Your task to perform on an android device: What's the news this week? Image 0: 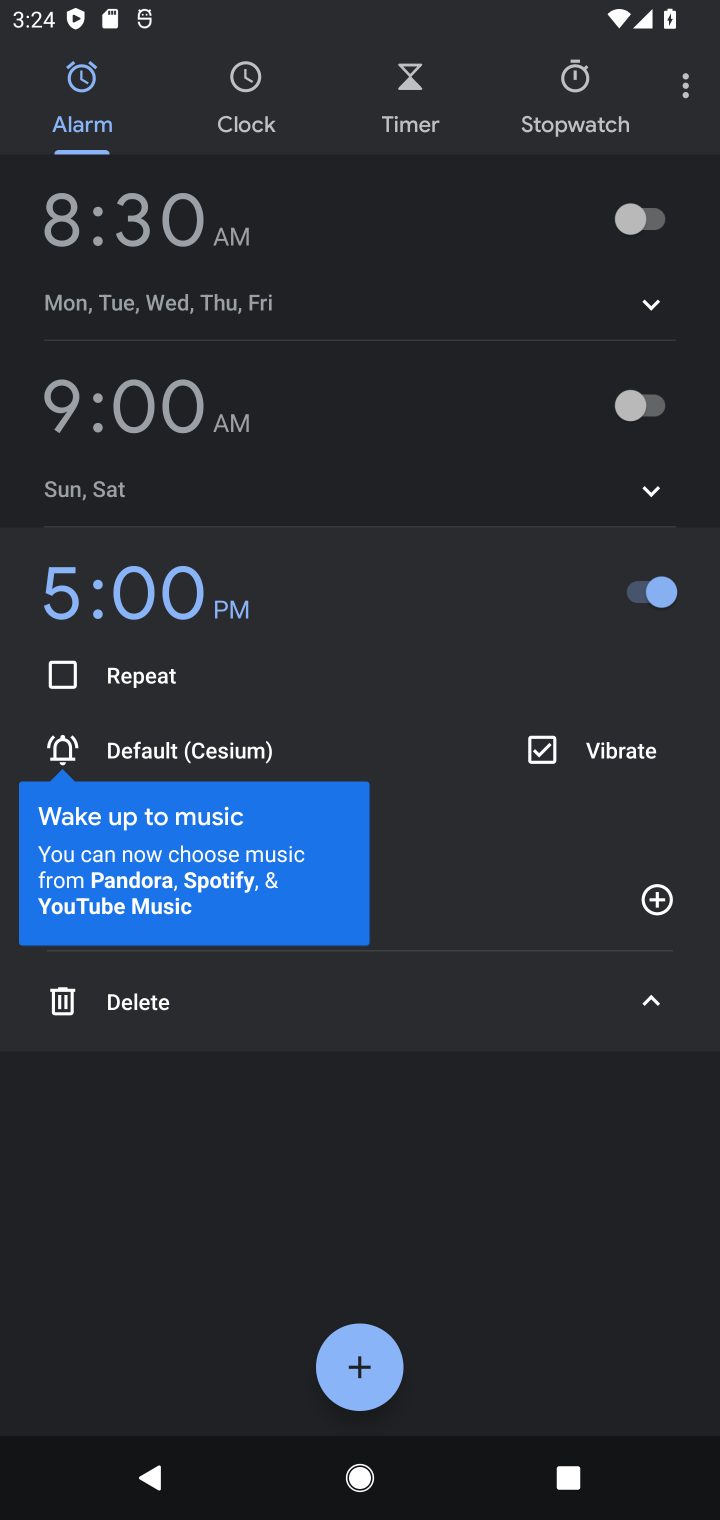
Step 0: press home button
Your task to perform on an android device: What's the news this week? Image 1: 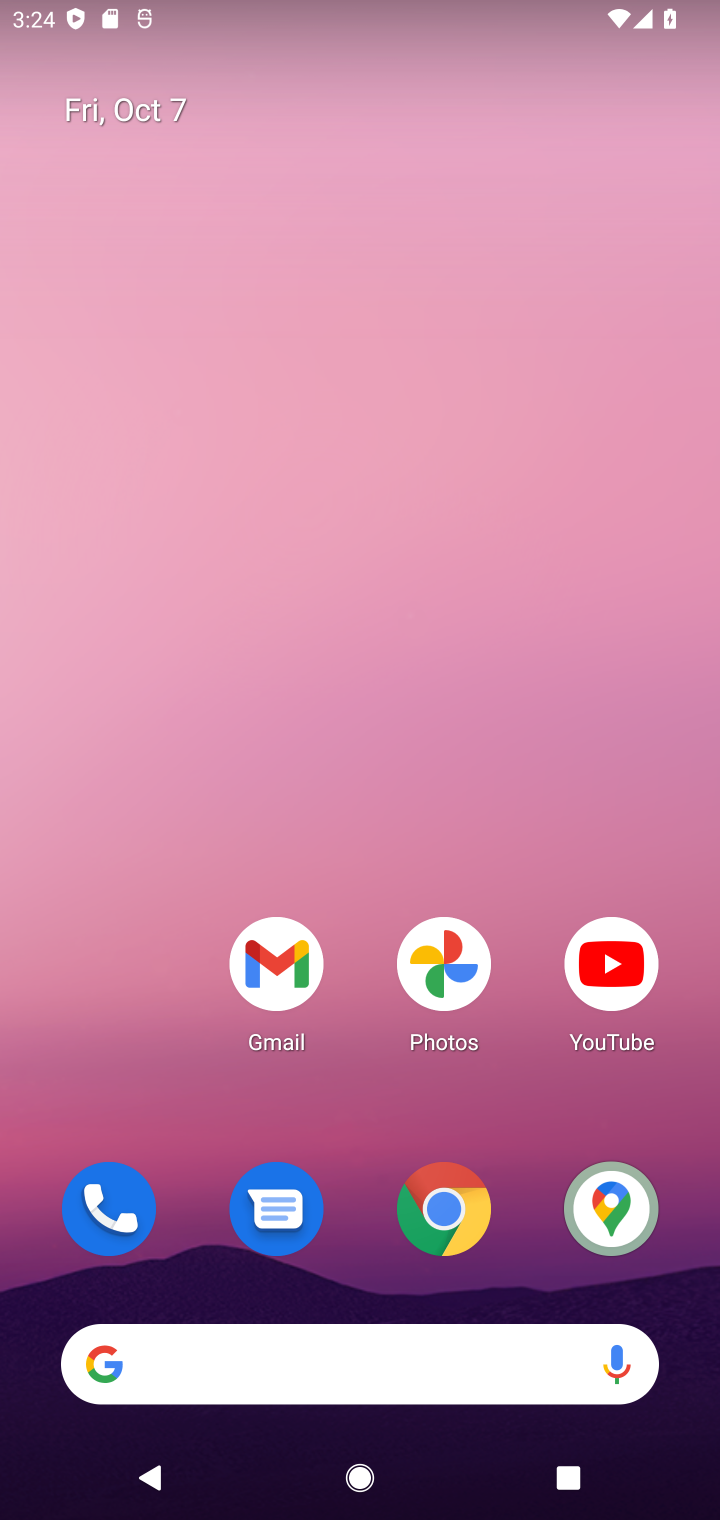
Step 1: click (335, 1382)
Your task to perform on an android device: What's the news this week? Image 2: 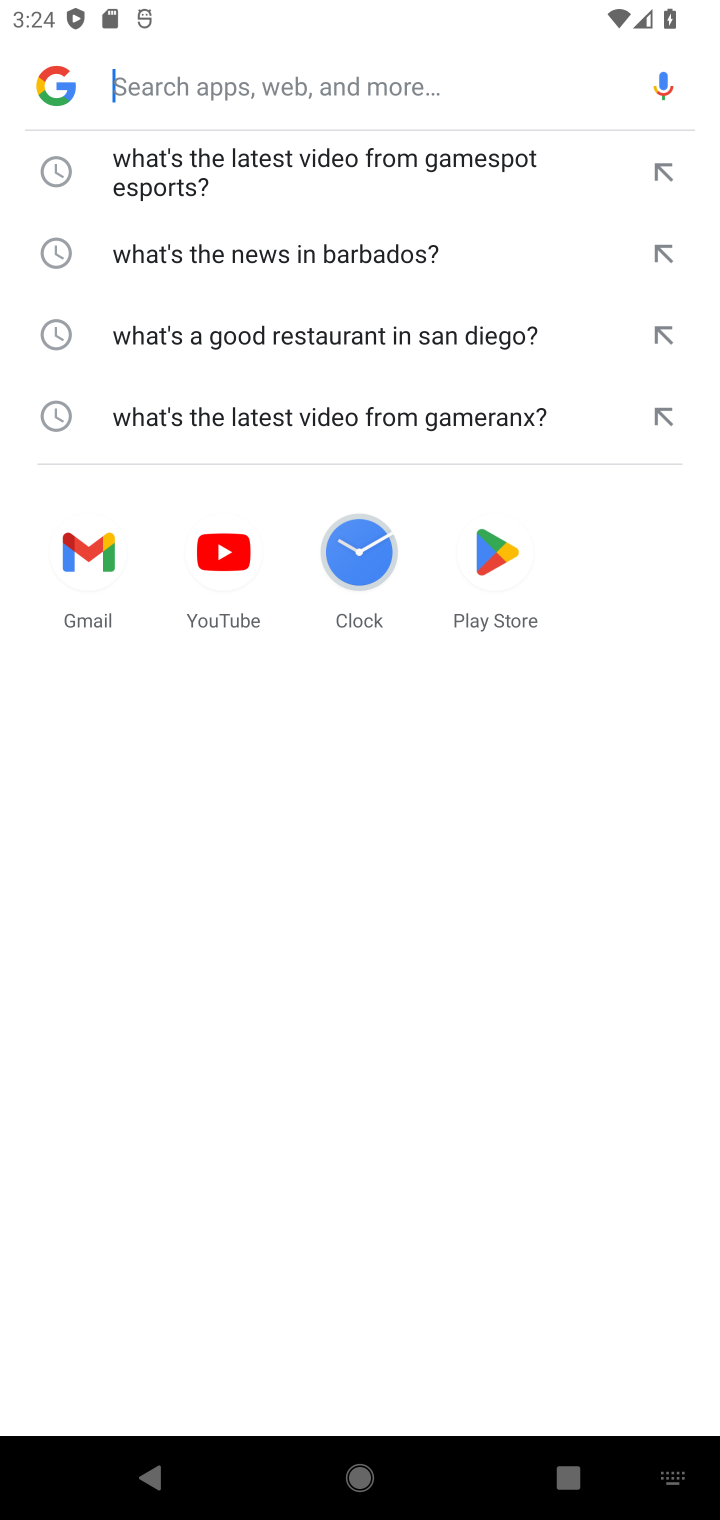
Step 2: press enter
Your task to perform on an android device: What's the news this week? Image 3: 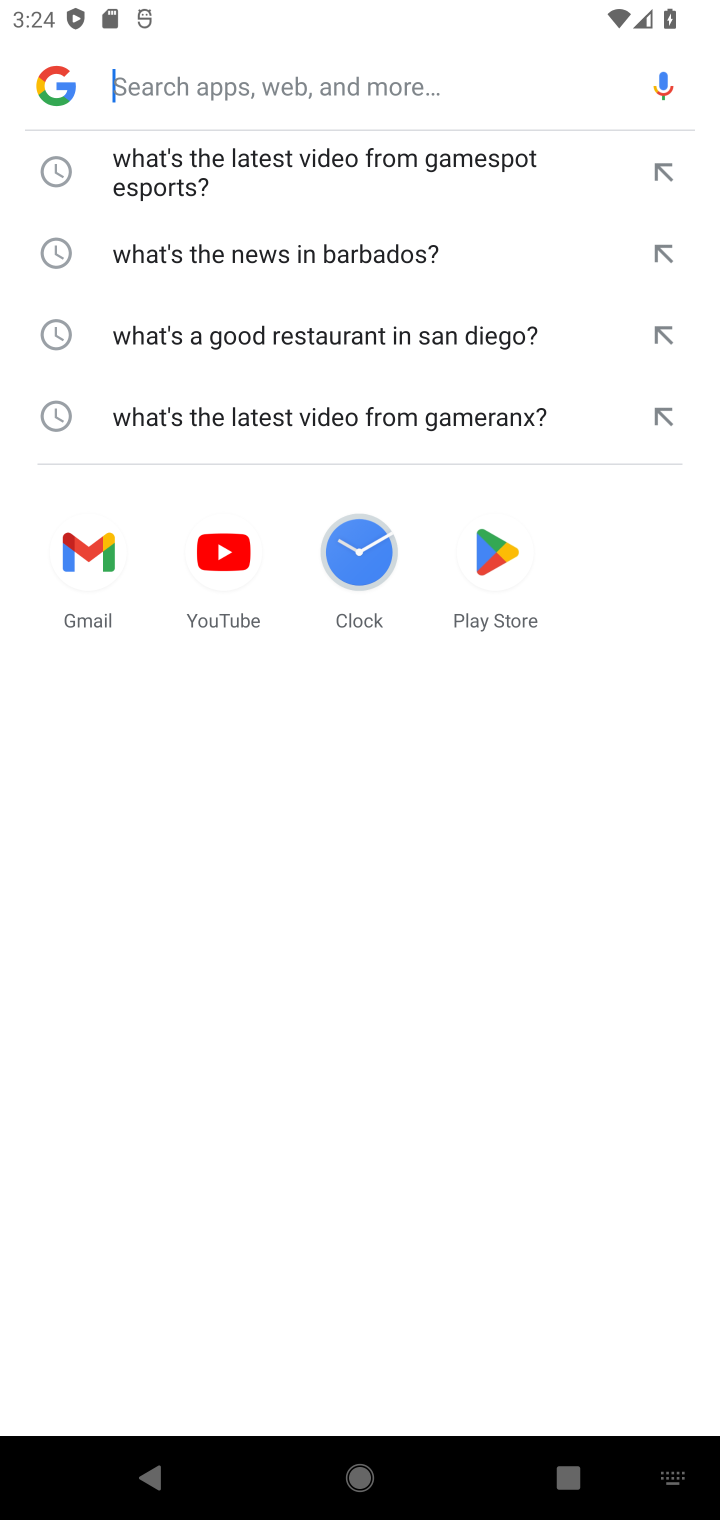
Step 3: type "What's the news this week?"
Your task to perform on an android device: What's the news this week? Image 4: 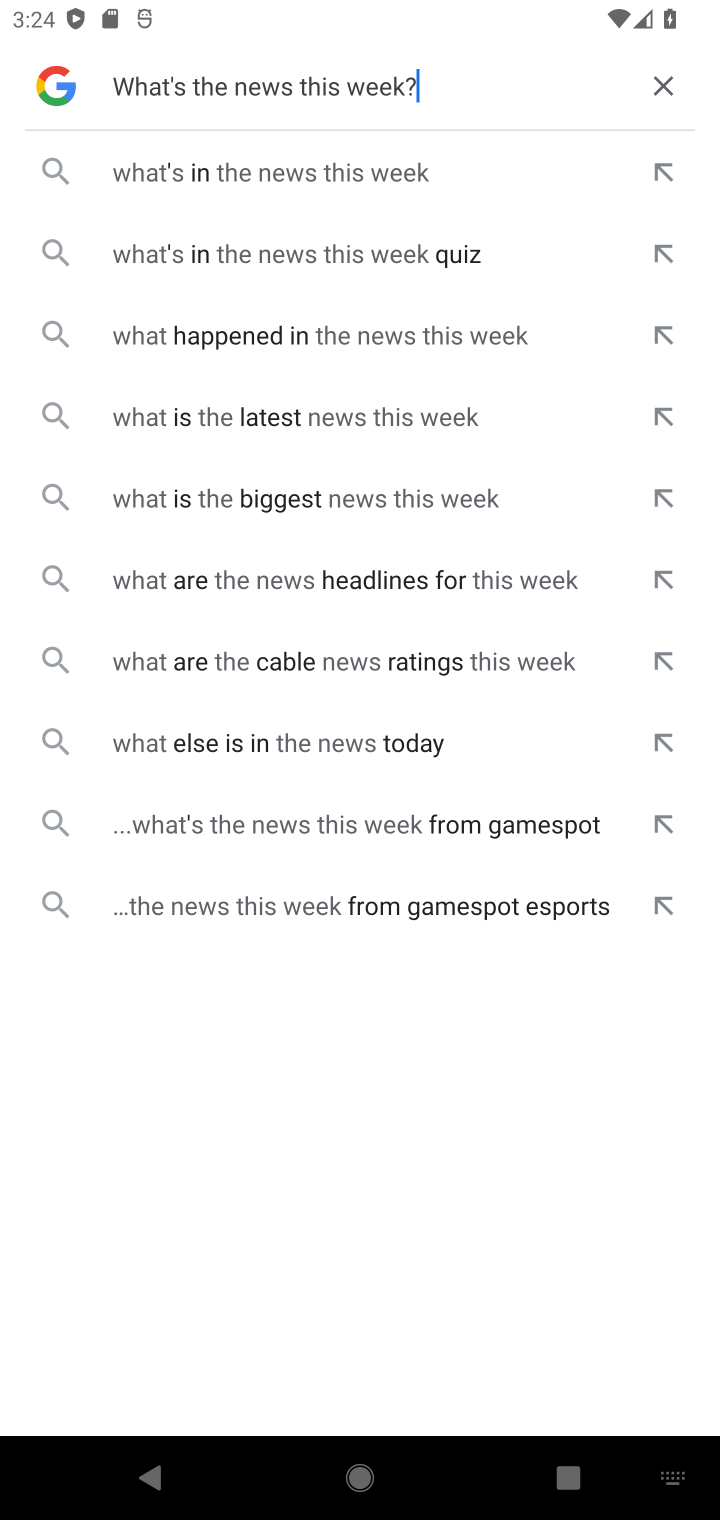
Step 4: press enter
Your task to perform on an android device: What's the news this week? Image 5: 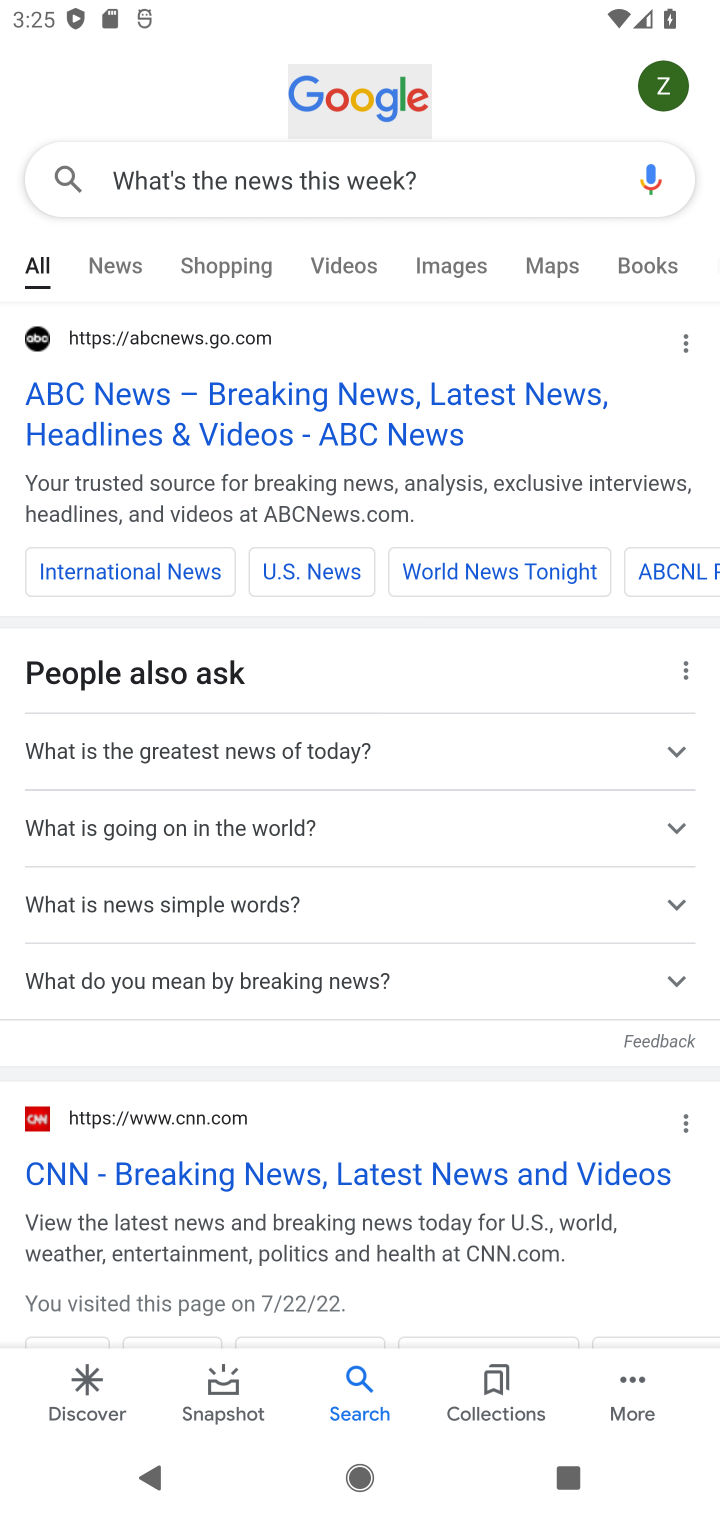
Step 5: click (349, 409)
Your task to perform on an android device: What's the news this week? Image 6: 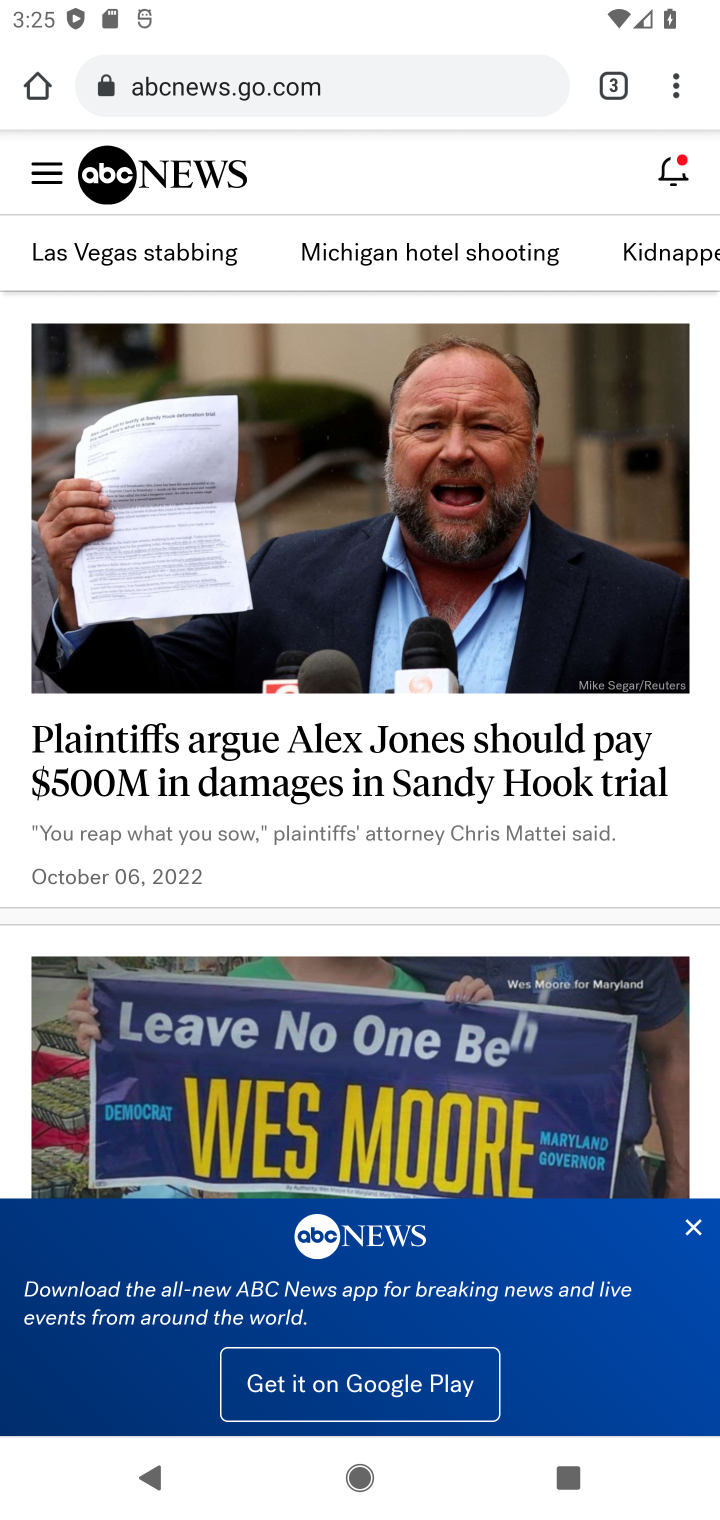
Step 6: drag from (566, 1033) to (570, 611)
Your task to perform on an android device: What's the news this week? Image 7: 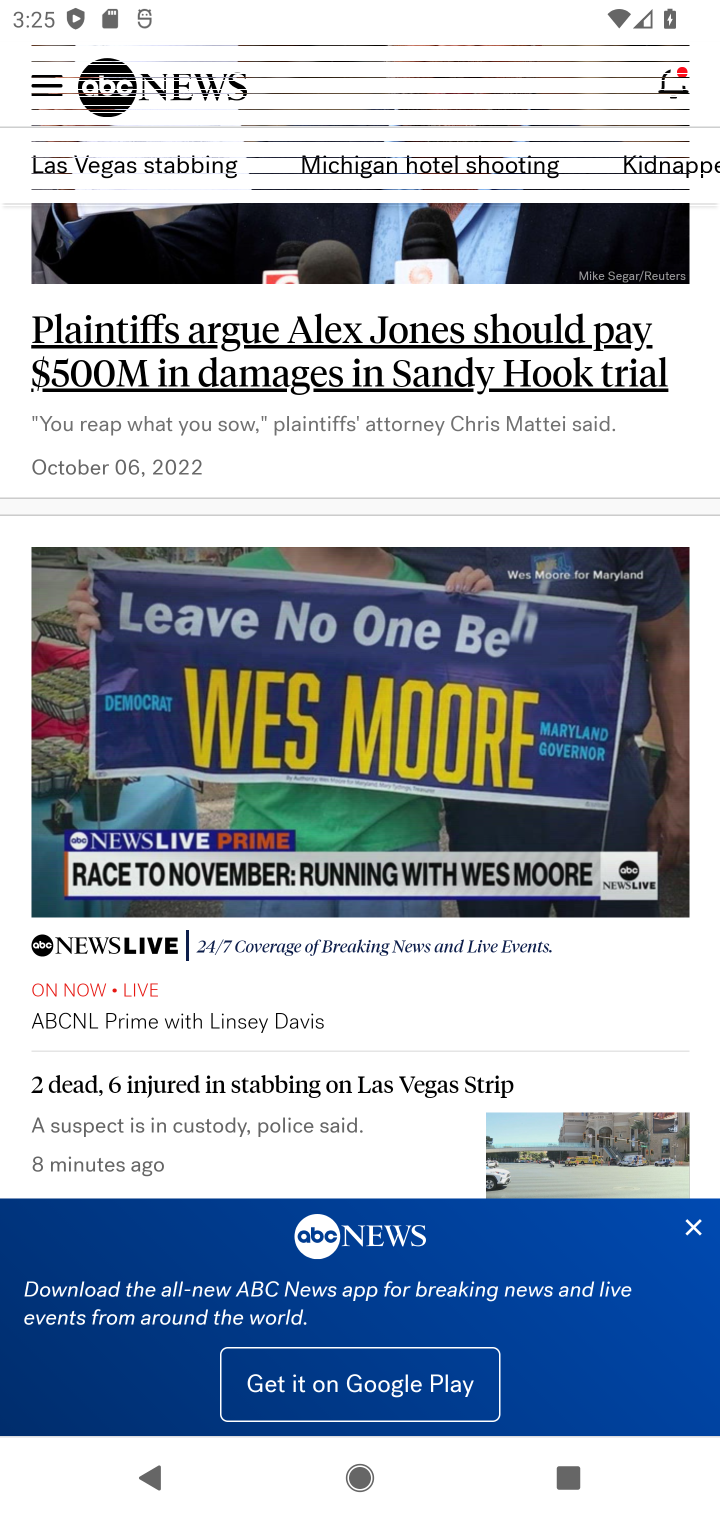
Step 7: drag from (546, 956) to (548, 537)
Your task to perform on an android device: What's the news this week? Image 8: 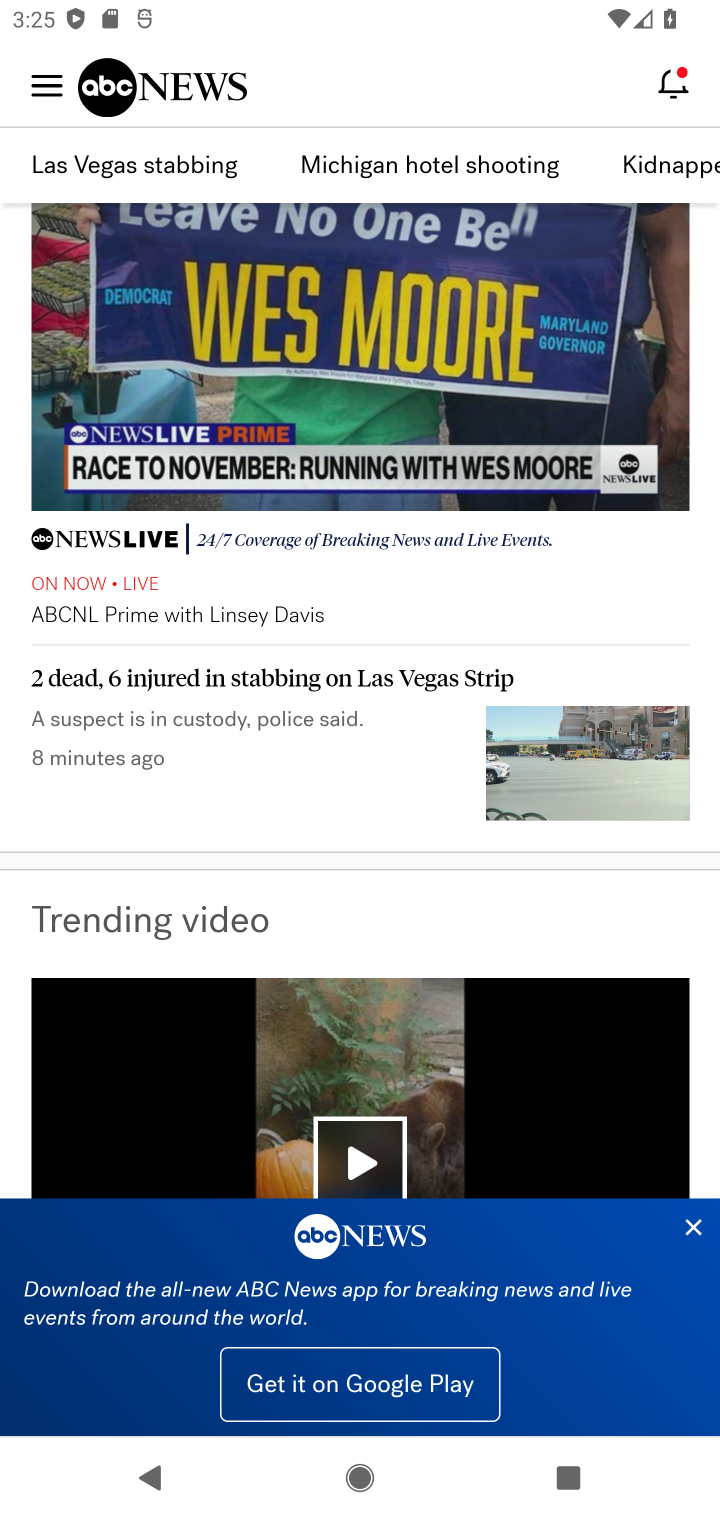
Step 8: drag from (610, 942) to (597, 540)
Your task to perform on an android device: What's the news this week? Image 9: 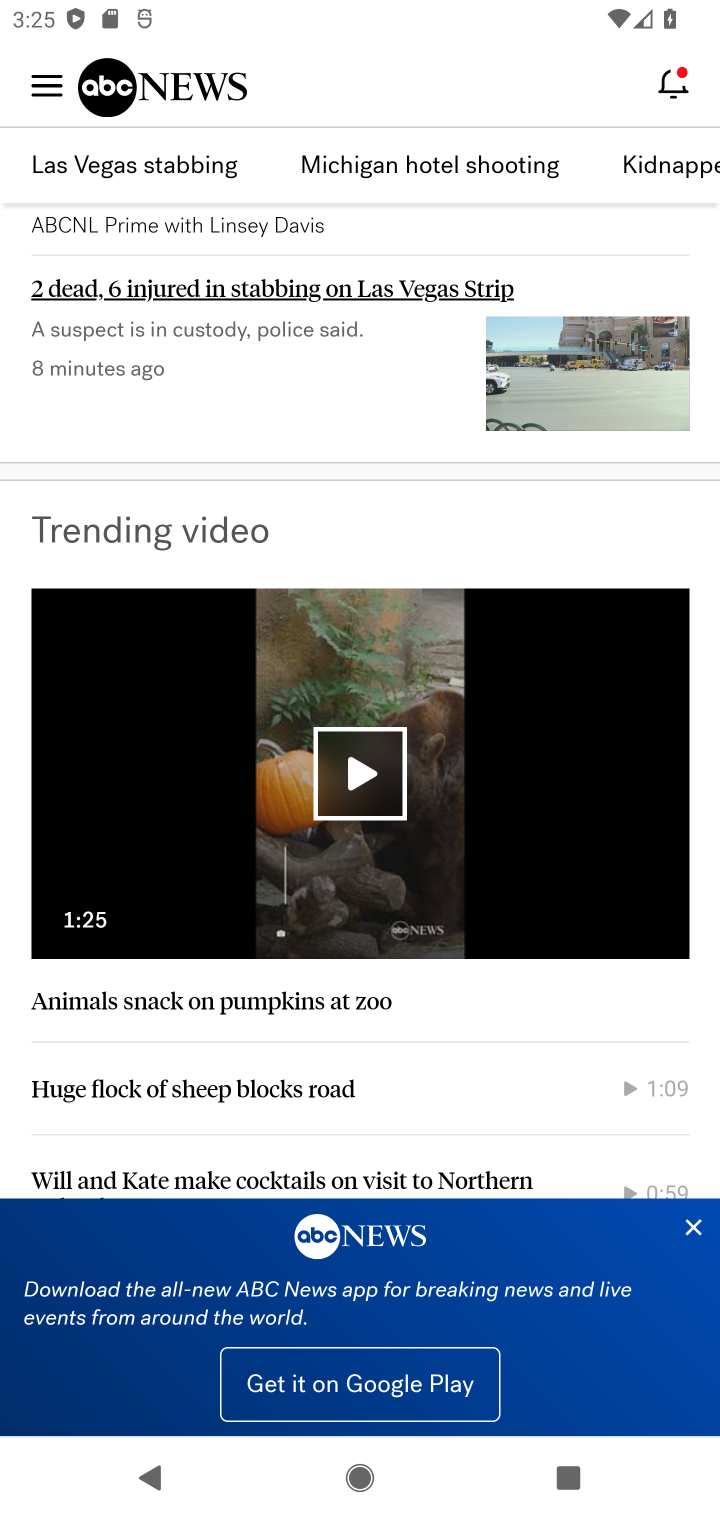
Step 9: click (690, 1241)
Your task to perform on an android device: What's the news this week? Image 10: 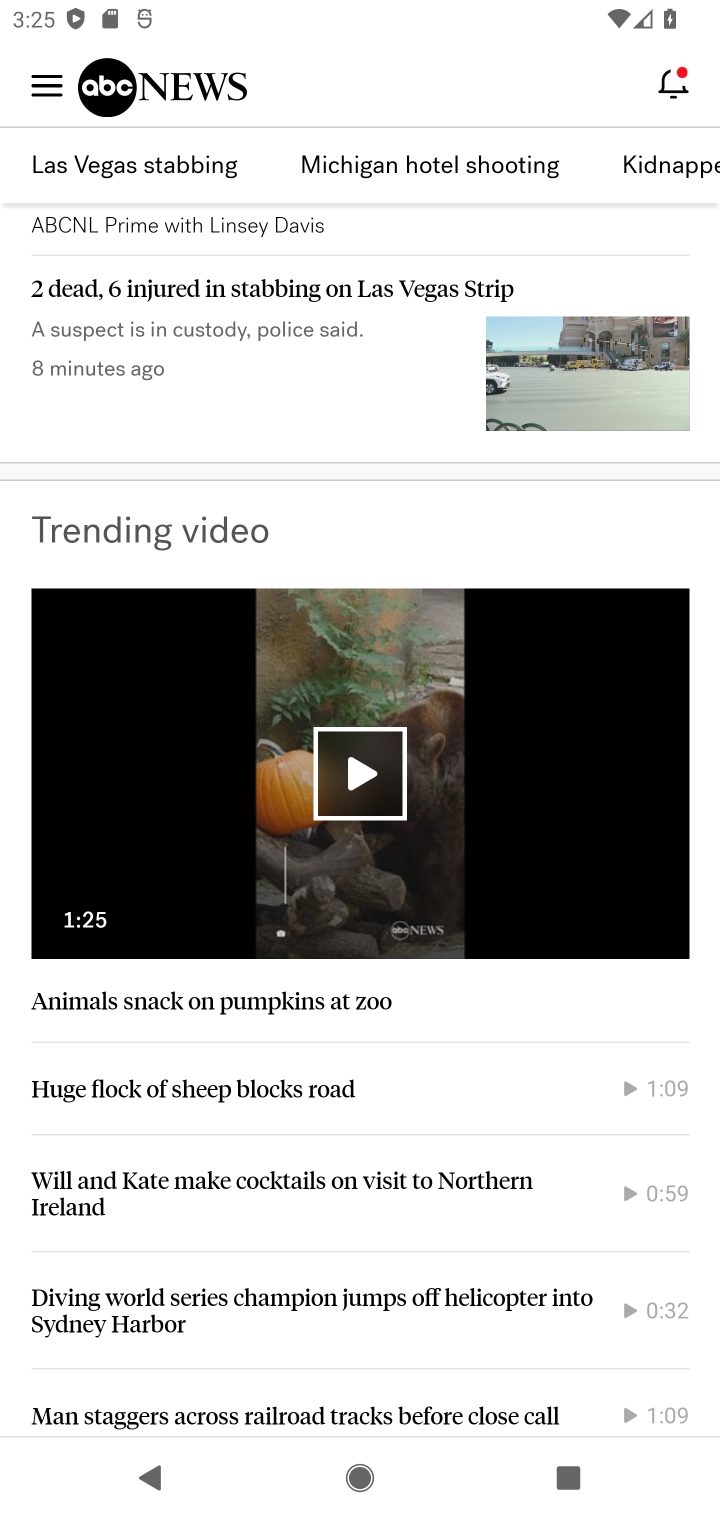
Step 10: task complete